Your task to perform on an android device: turn on airplane mode Image 0: 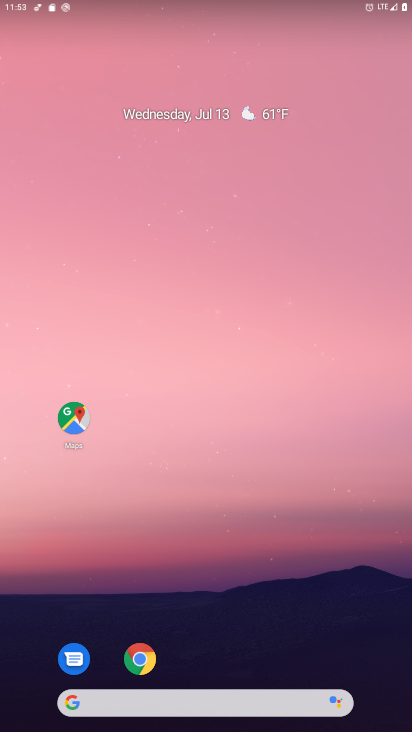
Step 0: press home button
Your task to perform on an android device: turn on airplane mode Image 1: 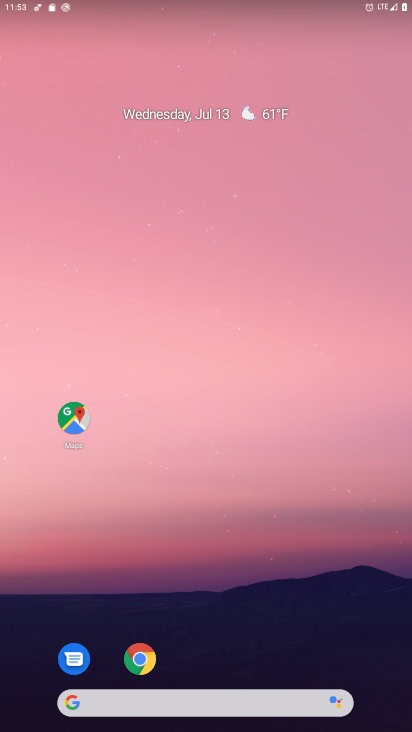
Step 1: drag from (289, 9) to (306, 576)
Your task to perform on an android device: turn on airplane mode Image 2: 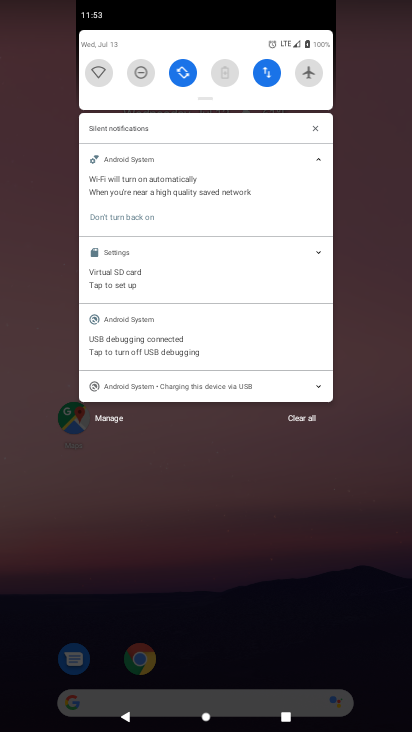
Step 2: click (306, 71)
Your task to perform on an android device: turn on airplane mode Image 3: 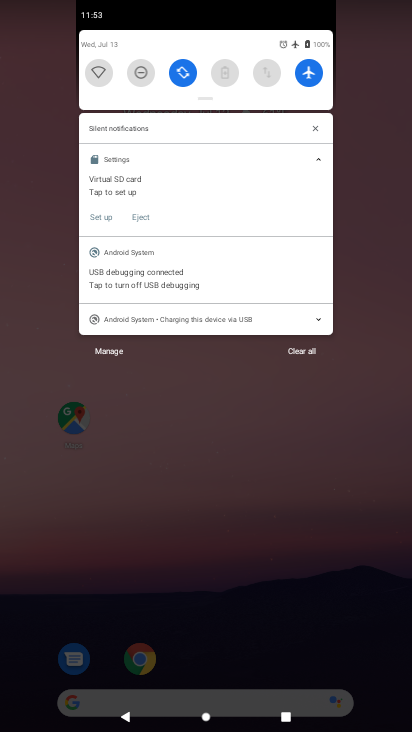
Step 3: task complete